Your task to perform on an android device: open wifi settings Image 0: 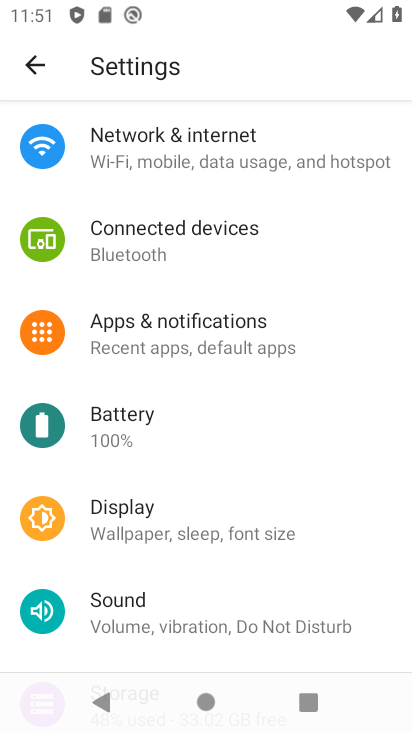
Step 0: click (168, 161)
Your task to perform on an android device: open wifi settings Image 1: 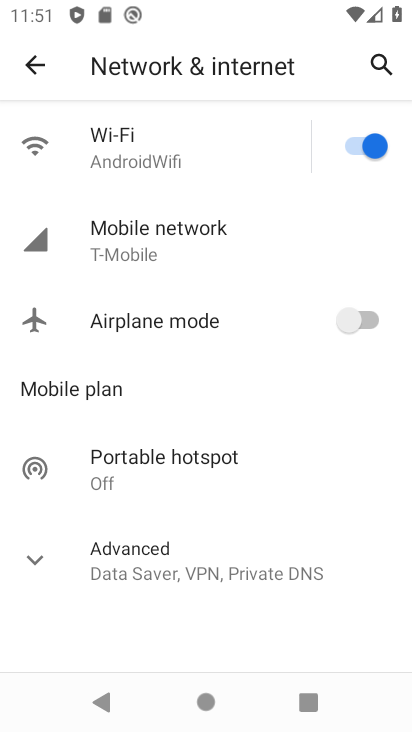
Step 1: click (135, 145)
Your task to perform on an android device: open wifi settings Image 2: 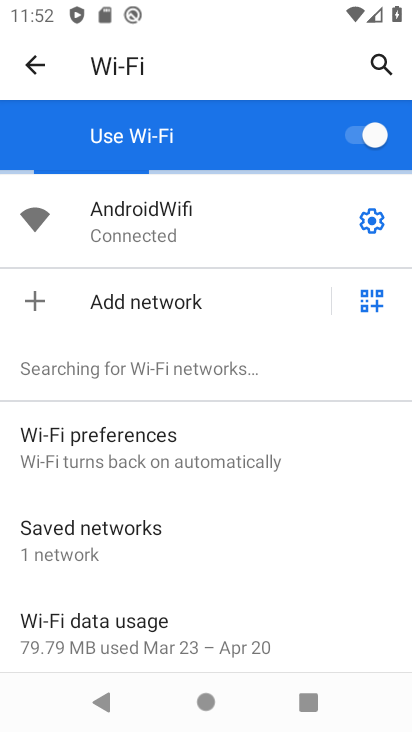
Step 2: click (371, 221)
Your task to perform on an android device: open wifi settings Image 3: 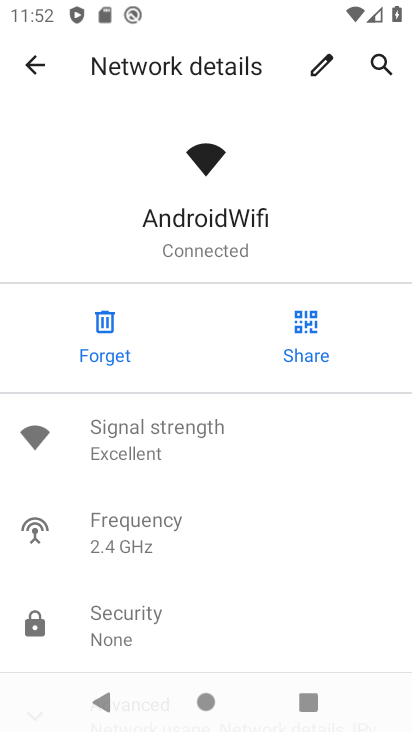
Step 3: task complete